Your task to perform on an android device: Show me popular videos on Youtube Image 0: 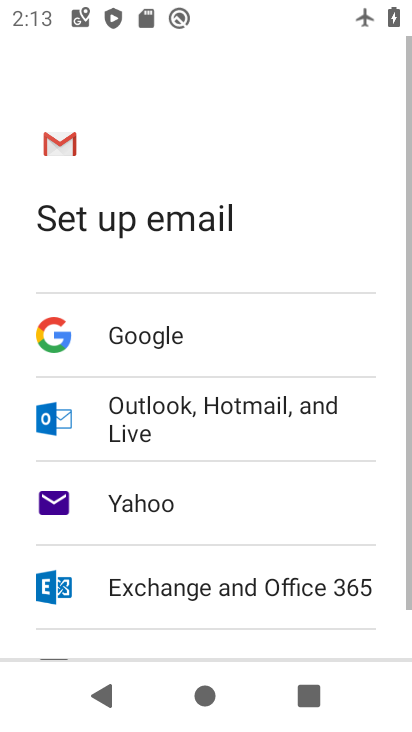
Step 0: press home button
Your task to perform on an android device: Show me popular videos on Youtube Image 1: 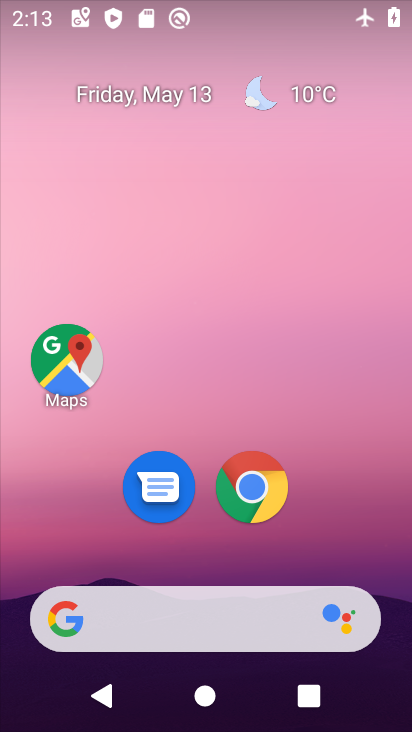
Step 1: drag from (178, 575) to (227, 218)
Your task to perform on an android device: Show me popular videos on Youtube Image 2: 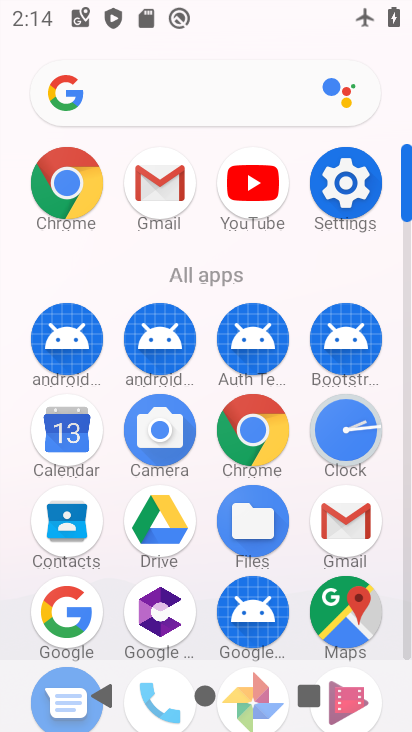
Step 2: click (237, 183)
Your task to perform on an android device: Show me popular videos on Youtube Image 3: 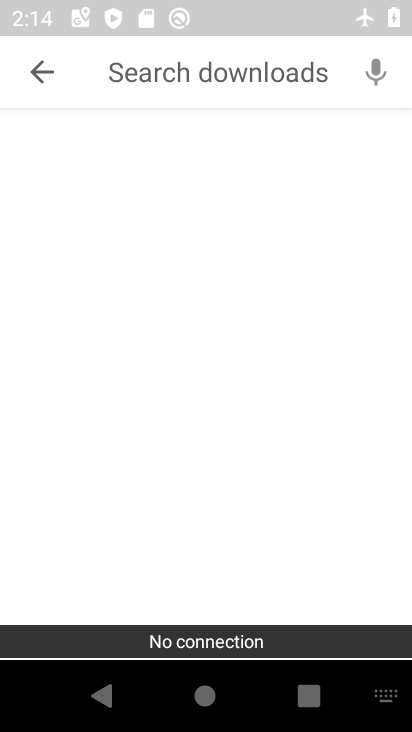
Step 3: task complete